Your task to perform on an android device: Open Chrome and go to the settings page Image 0: 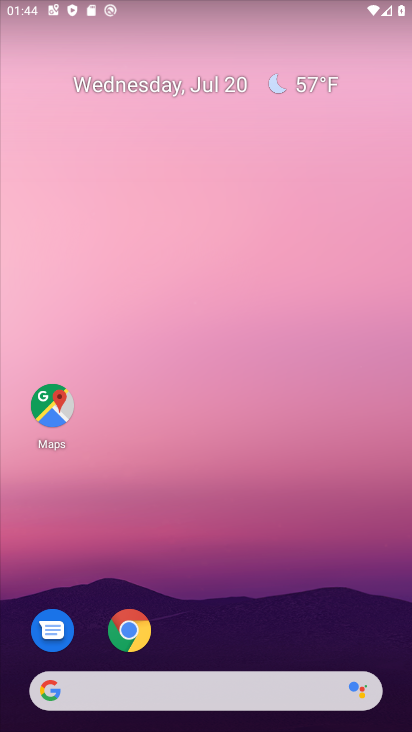
Step 0: drag from (258, 656) to (263, 143)
Your task to perform on an android device: Open Chrome and go to the settings page Image 1: 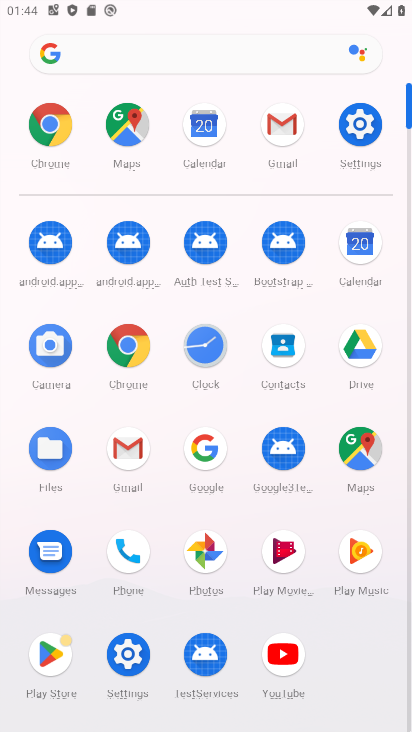
Step 1: click (123, 346)
Your task to perform on an android device: Open Chrome and go to the settings page Image 2: 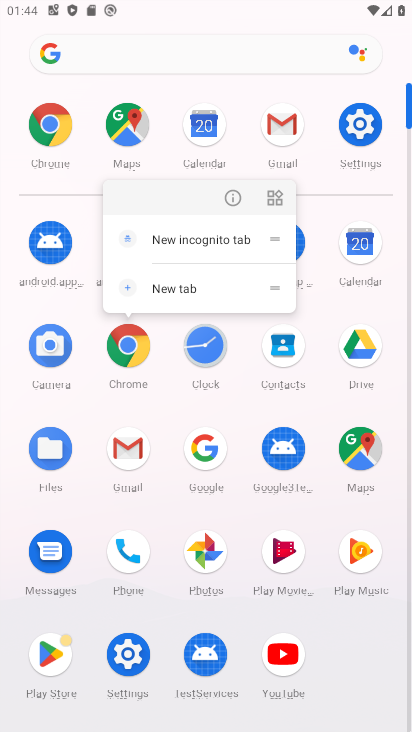
Step 2: click (124, 350)
Your task to perform on an android device: Open Chrome and go to the settings page Image 3: 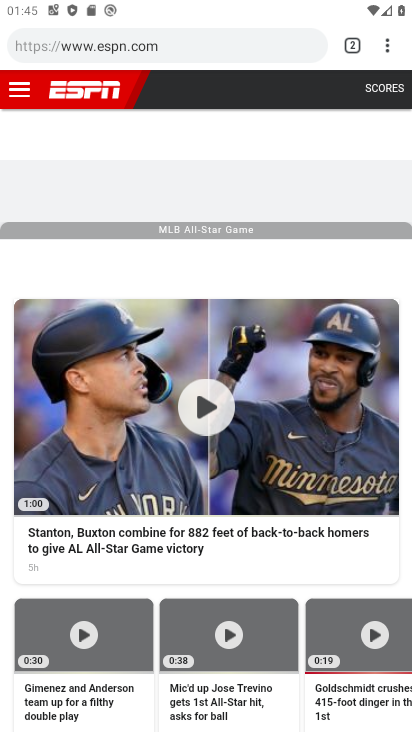
Step 3: task complete